Your task to perform on an android device: Toggle the flashlight Image 0: 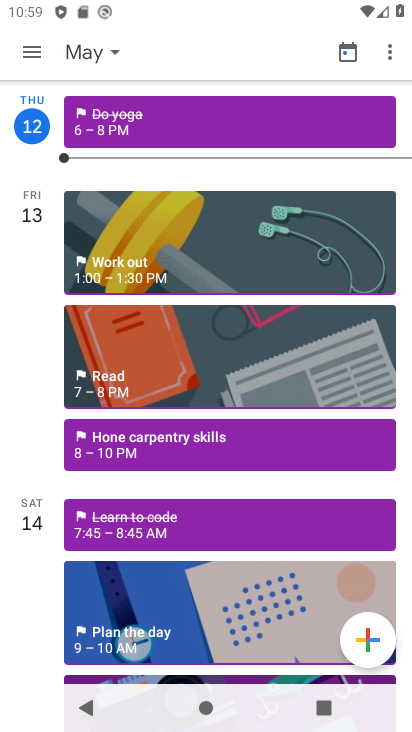
Step 0: press home button
Your task to perform on an android device: Toggle the flashlight Image 1: 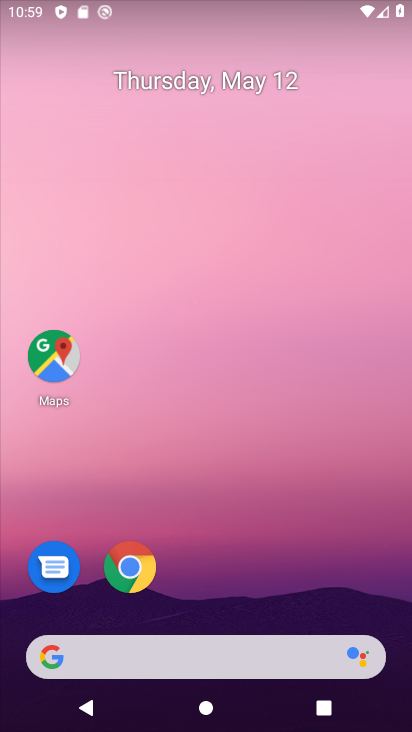
Step 1: drag from (339, 3) to (266, 545)
Your task to perform on an android device: Toggle the flashlight Image 2: 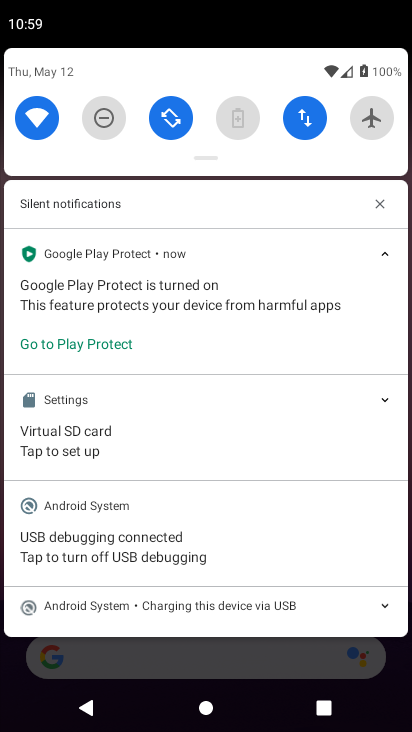
Step 2: drag from (210, 145) to (150, 596)
Your task to perform on an android device: Toggle the flashlight Image 3: 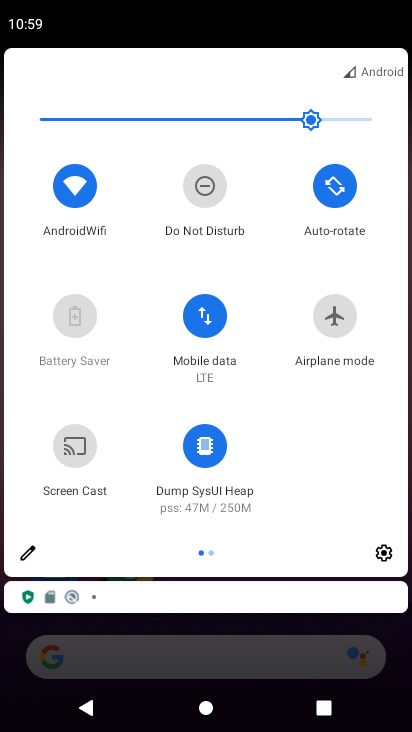
Step 3: click (29, 553)
Your task to perform on an android device: Toggle the flashlight Image 4: 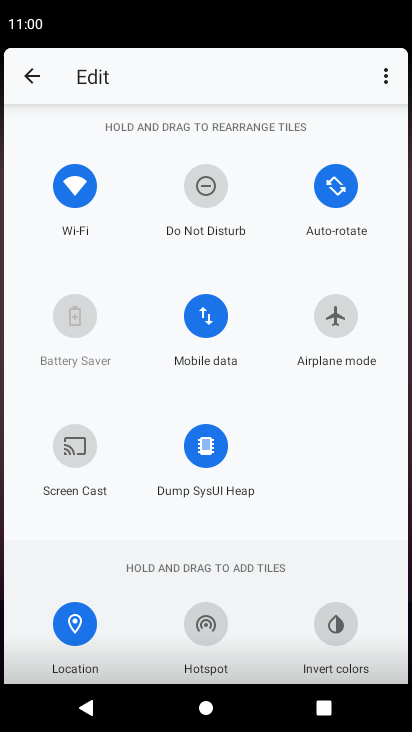
Step 4: task complete